Your task to perform on an android device: View the shopping cart on newegg.com. Search for usb-a on newegg.com, select the first entry, and add it to the cart. Image 0: 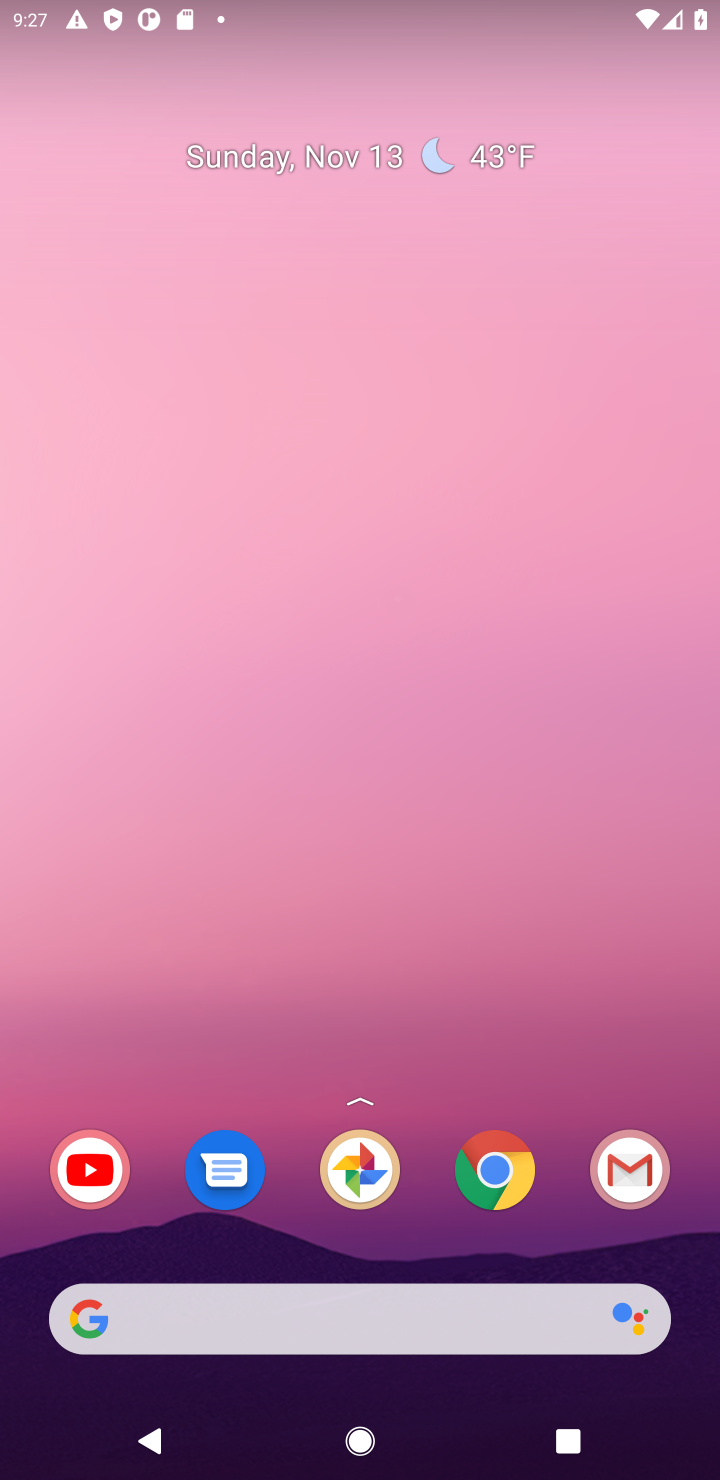
Step 0: drag from (462, 1191) to (426, 29)
Your task to perform on an android device: View the shopping cart on newegg.com. Search for usb-a on newegg.com, select the first entry, and add it to the cart. Image 1: 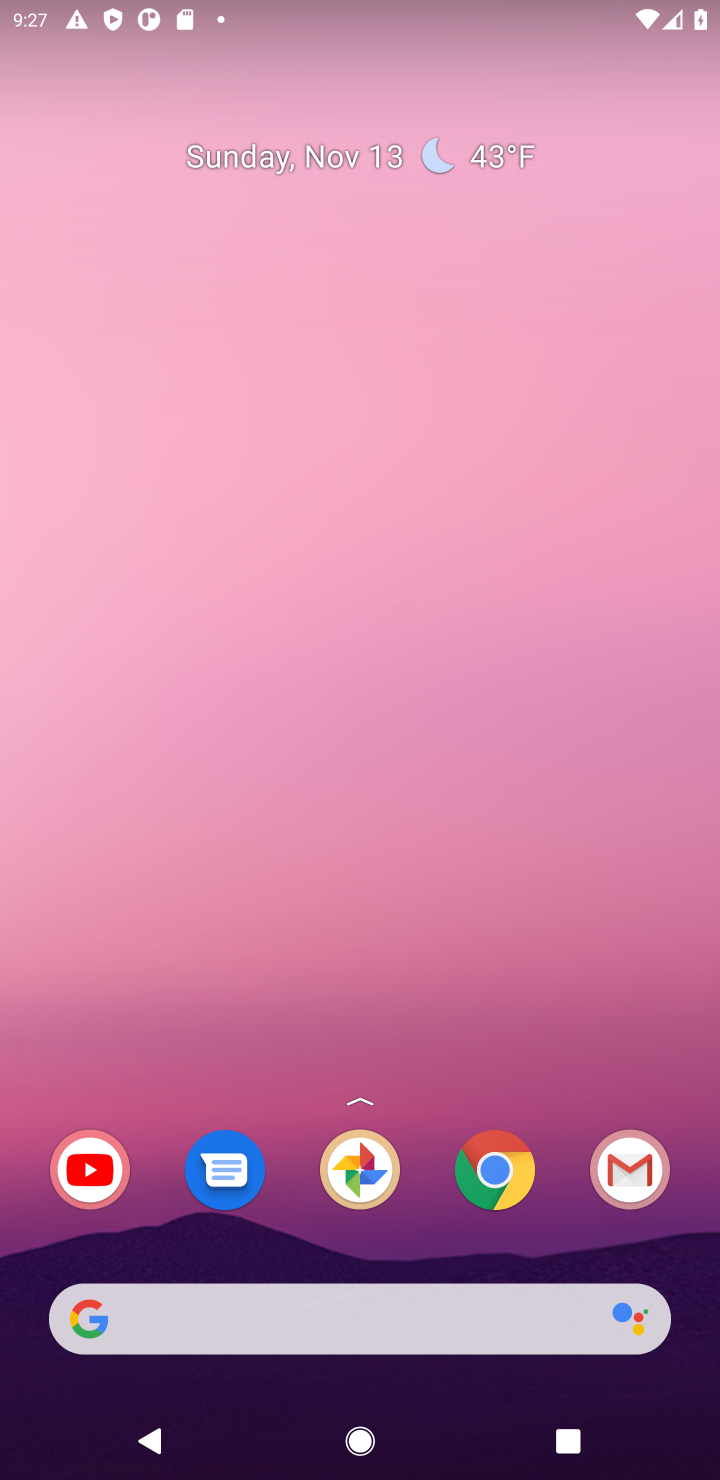
Step 1: drag from (375, 930) to (219, 33)
Your task to perform on an android device: View the shopping cart on newegg.com. Search for usb-a on newegg.com, select the first entry, and add it to the cart. Image 2: 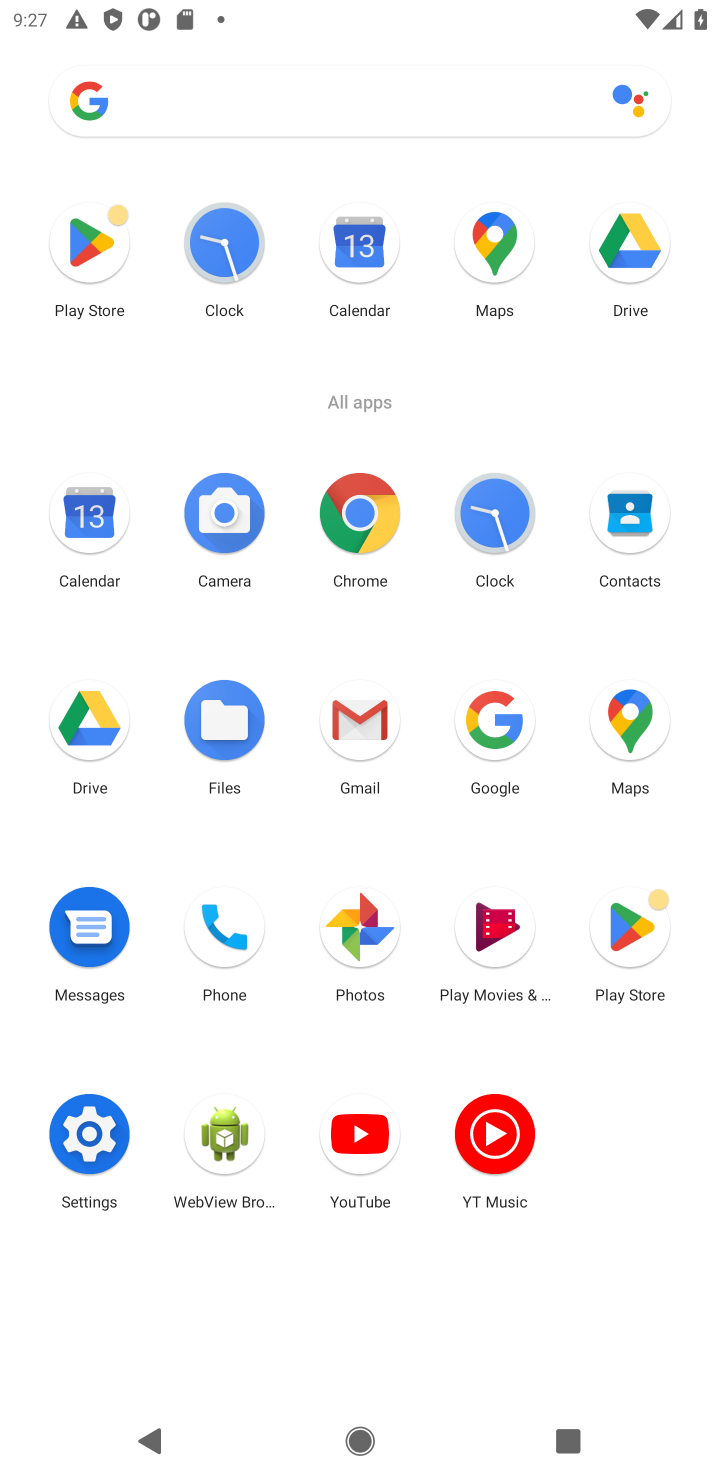
Step 2: click (374, 510)
Your task to perform on an android device: View the shopping cart on newegg.com. Search for usb-a on newegg.com, select the first entry, and add it to the cart. Image 3: 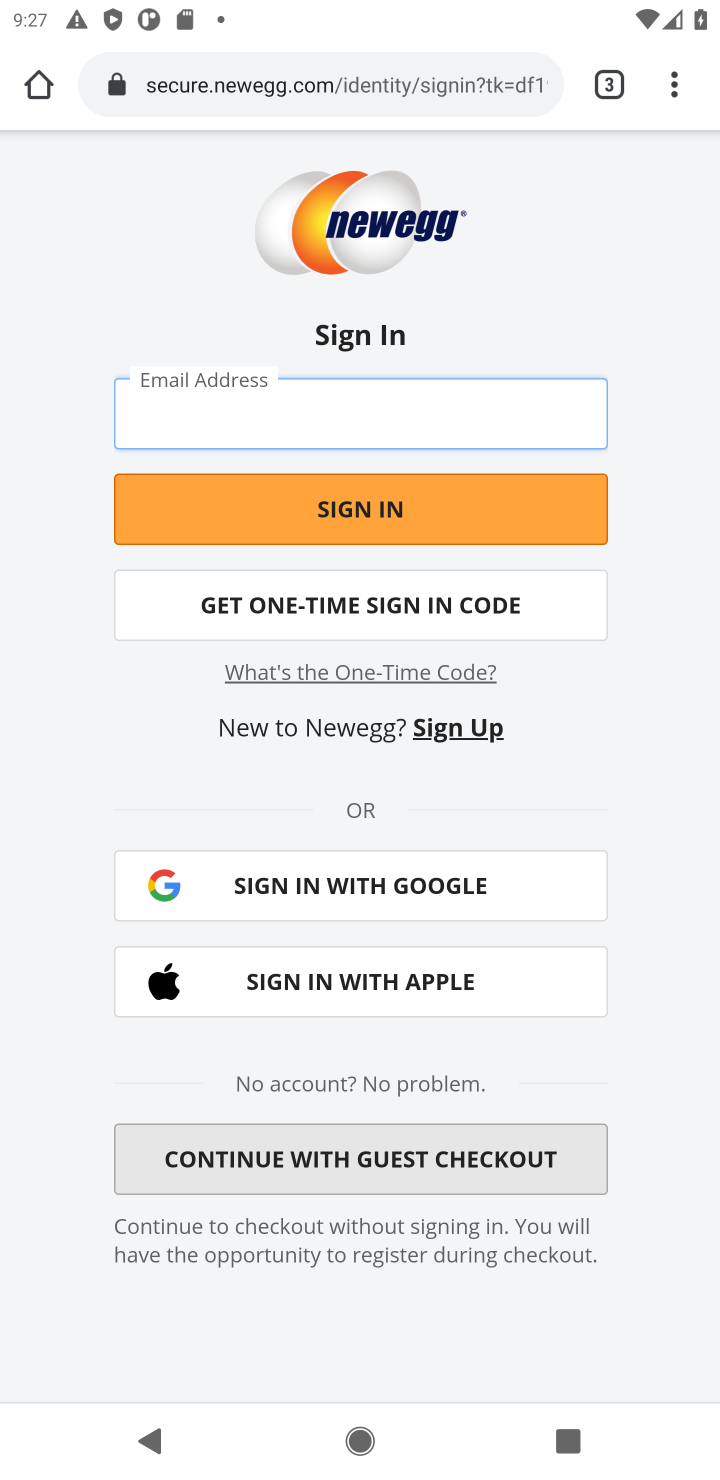
Step 3: press back button
Your task to perform on an android device: View the shopping cart on newegg.com. Search for usb-a on newegg.com, select the first entry, and add it to the cart. Image 4: 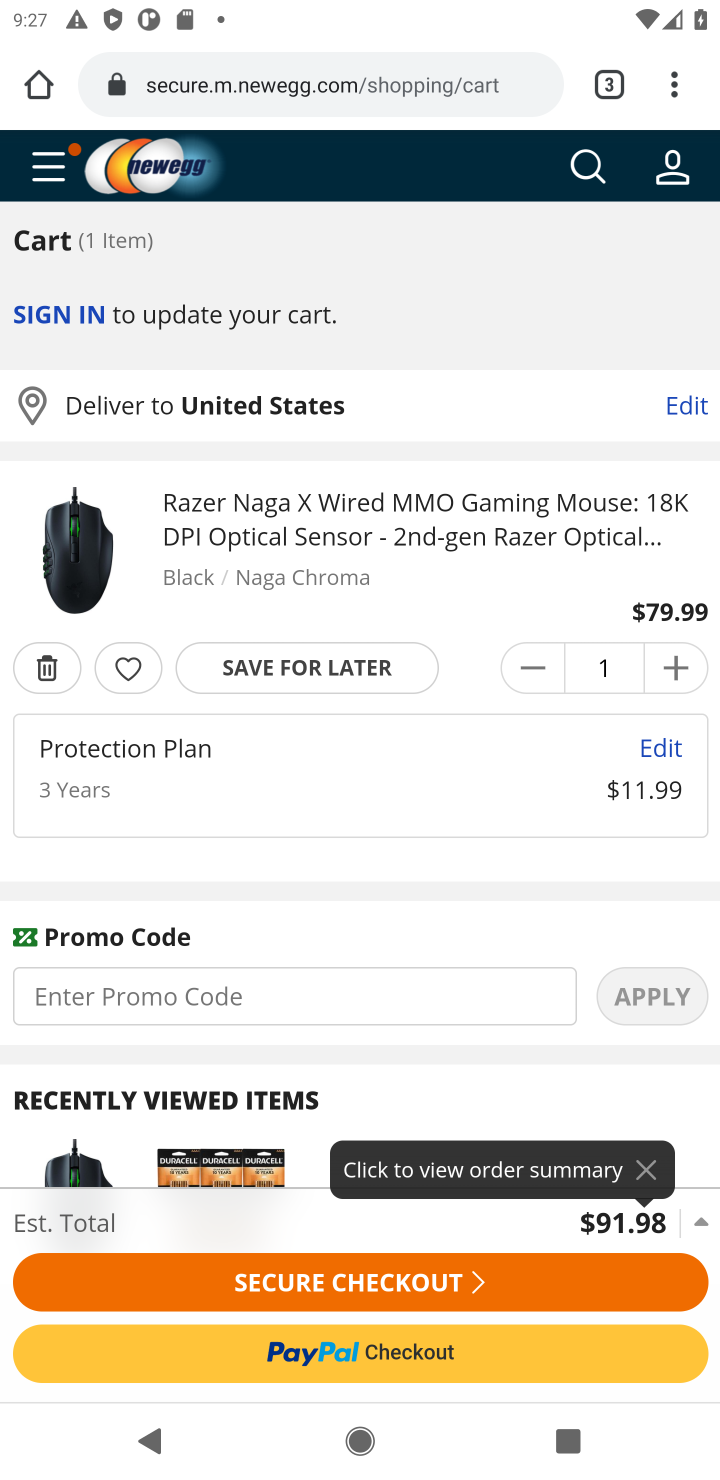
Step 4: click (587, 168)
Your task to perform on an android device: View the shopping cart on newegg.com. Search for usb-a on newegg.com, select the first entry, and add it to the cart. Image 5: 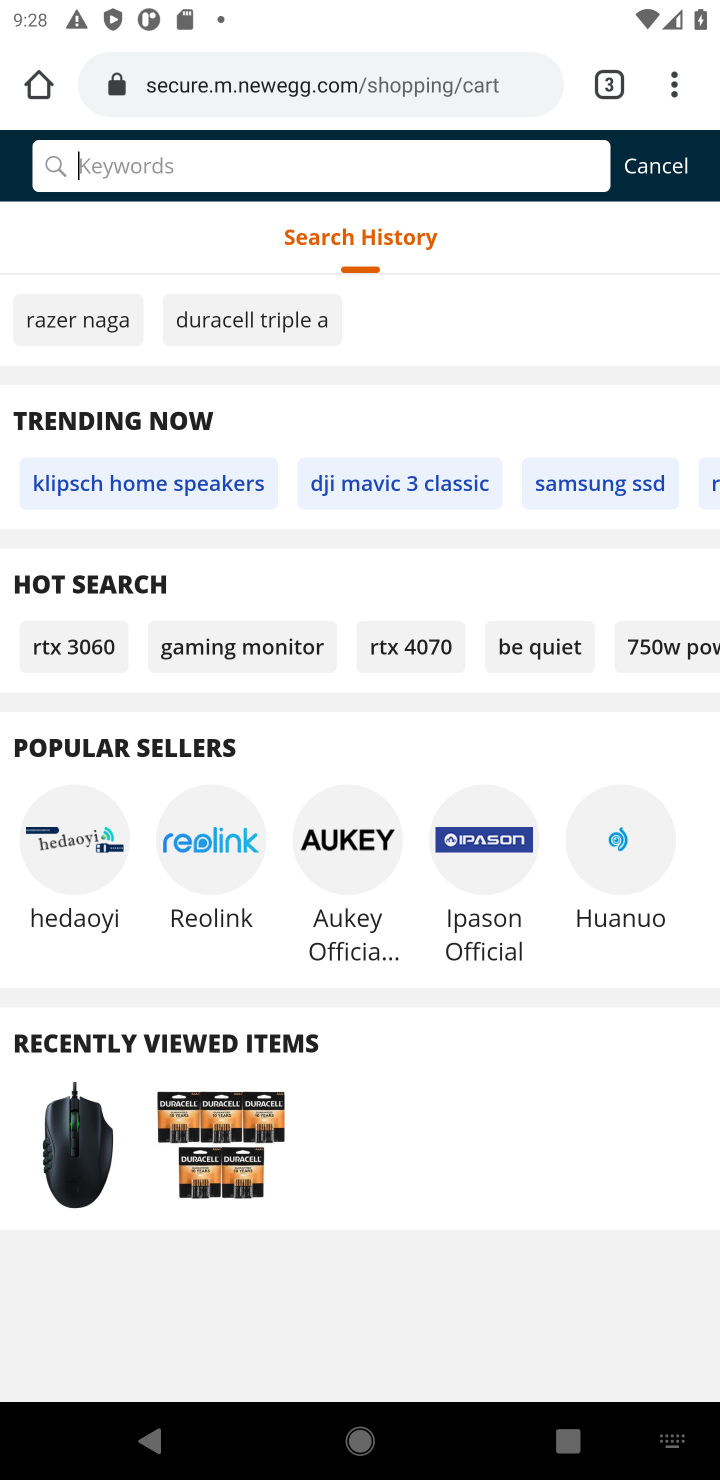
Step 5: click (532, 1016)
Your task to perform on an android device: View the shopping cart on newegg.com. Search for usb-a on newegg.com, select the first entry, and add it to the cart. Image 6: 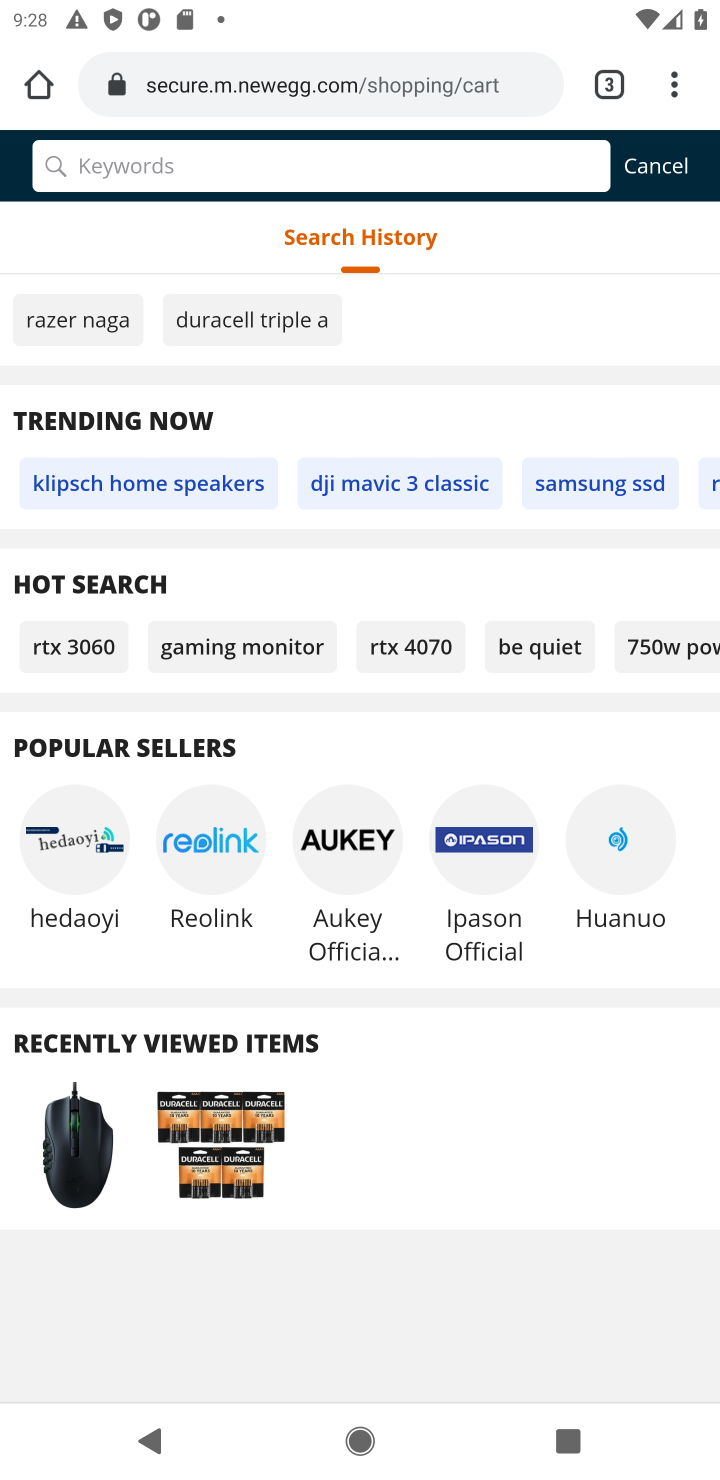
Step 6: click (161, 163)
Your task to perform on an android device: View the shopping cart on newegg.com. Search for usb-a on newegg.com, select the first entry, and add it to the cart. Image 7: 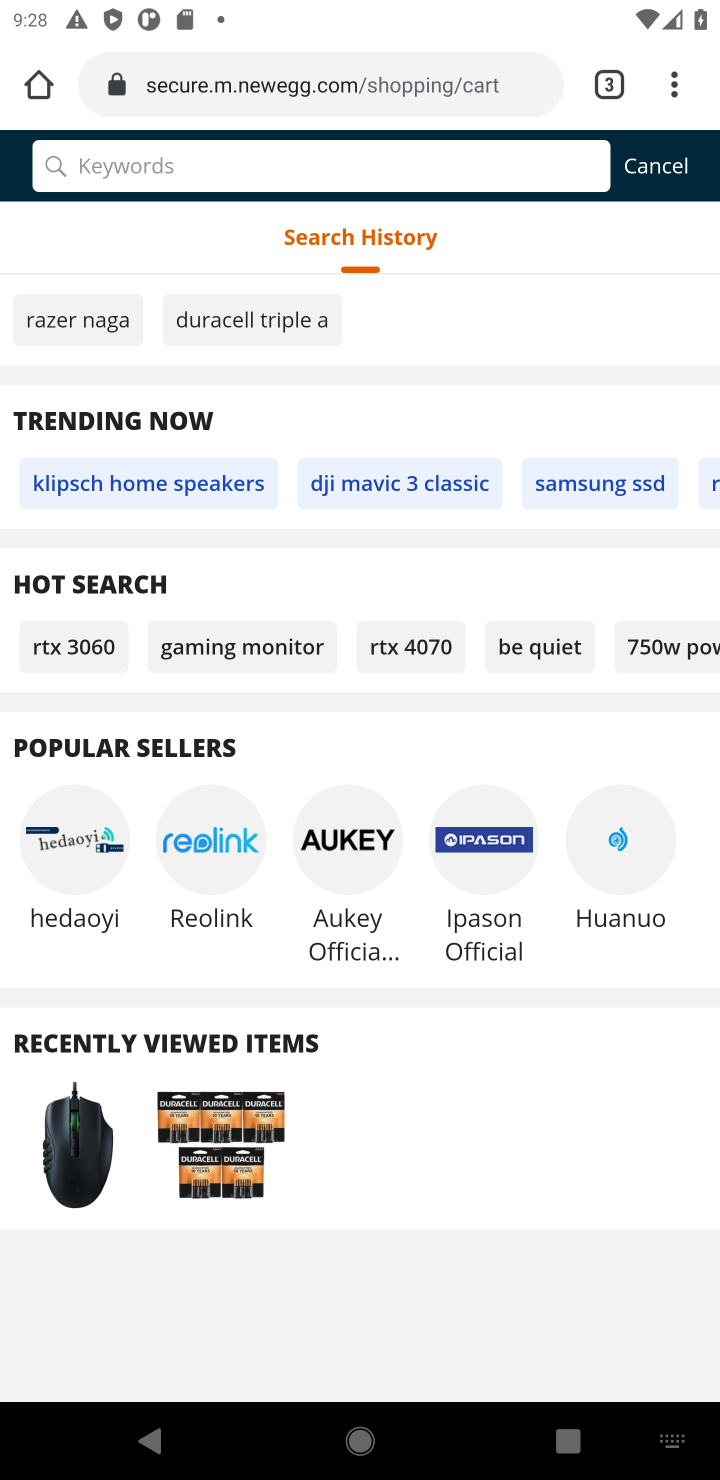
Step 7: type "razer naga "
Your task to perform on an android device: View the shopping cart on newegg.com. Search for usb-a on newegg.com, select the first entry, and add it to the cart. Image 8: 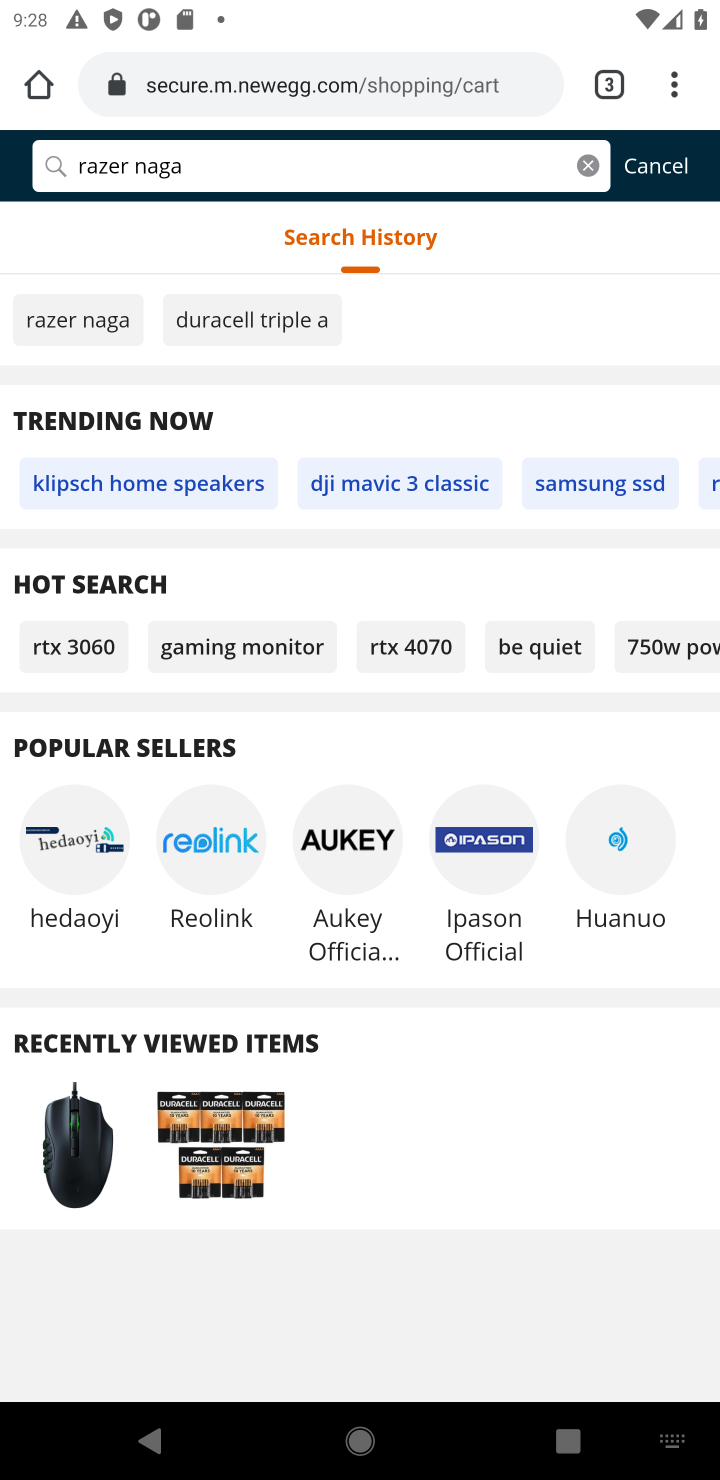
Step 8: press enter
Your task to perform on an android device: View the shopping cart on newegg.com. Search for usb-a on newegg.com, select the first entry, and add it to the cart. Image 9: 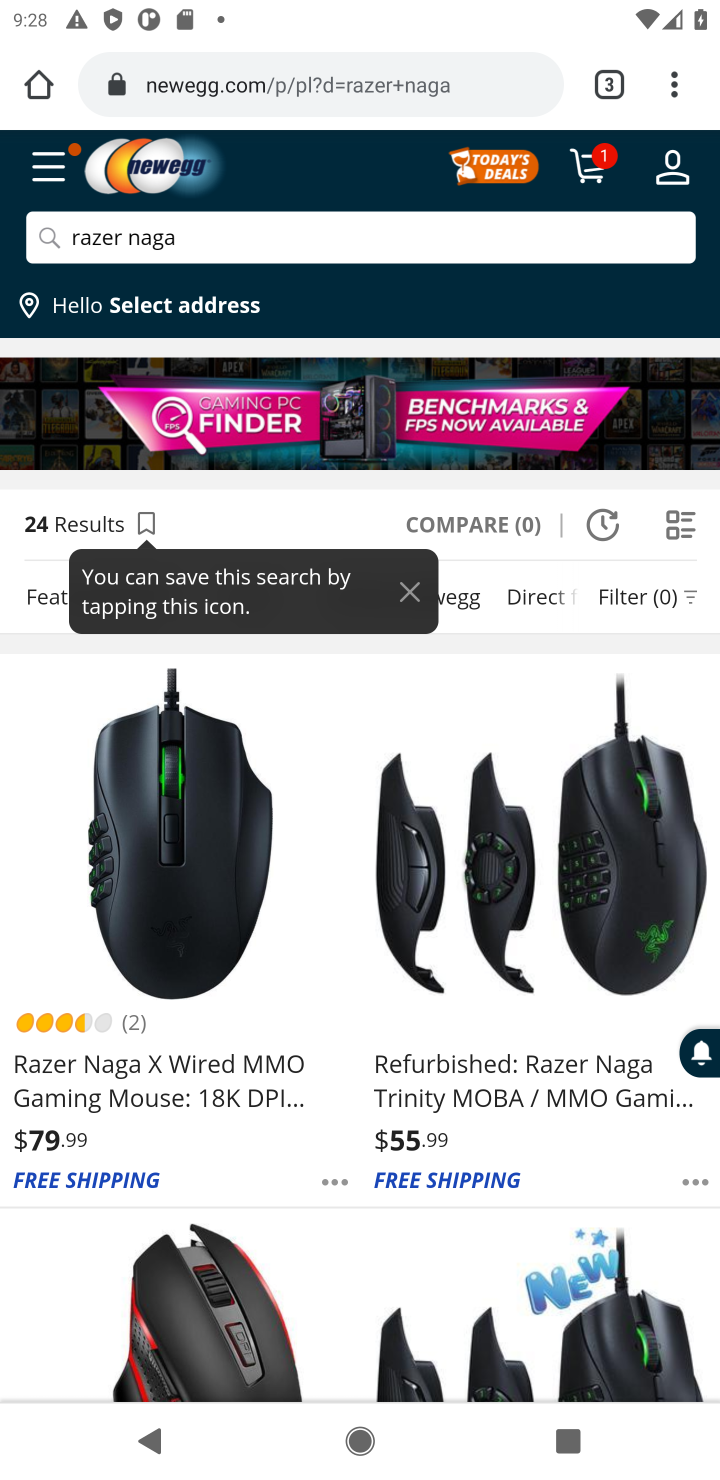
Step 9: click (66, 1059)
Your task to perform on an android device: View the shopping cart on newegg.com. Search for usb-a on newegg.com, select the first entry, and add it to the cart. Image 10: 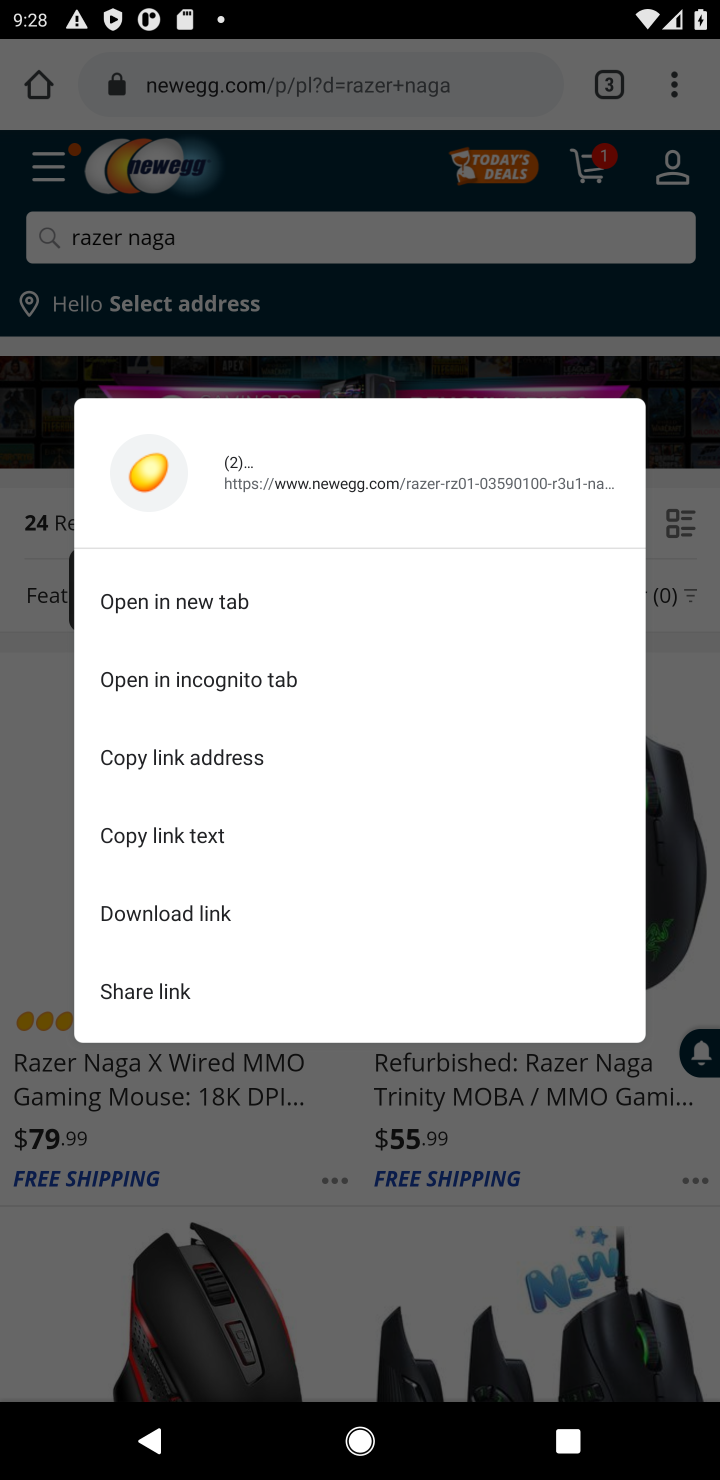
Step 10: click (130, 590)
Your task to perform on an android device: View the shopping cart on newegg.com. Search for usb-a on newegg.com, select the first entry, and add it to the cart. Image 11: 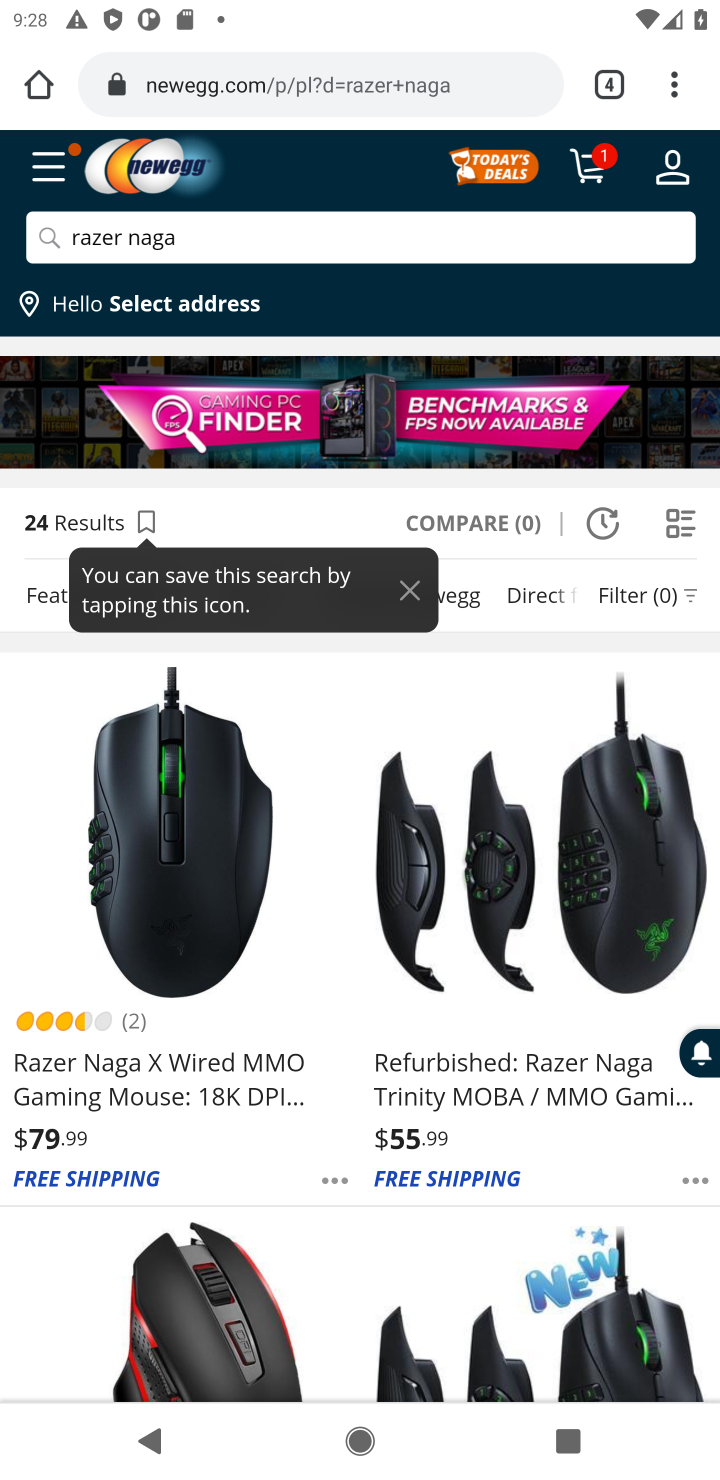
Step 11: click (223, 1065)
Your task to perform on an android device: View the shopping cart on newegg.com. Search for usb-a on newegg.com, select the first entry, and add it to the cart. Image 12: 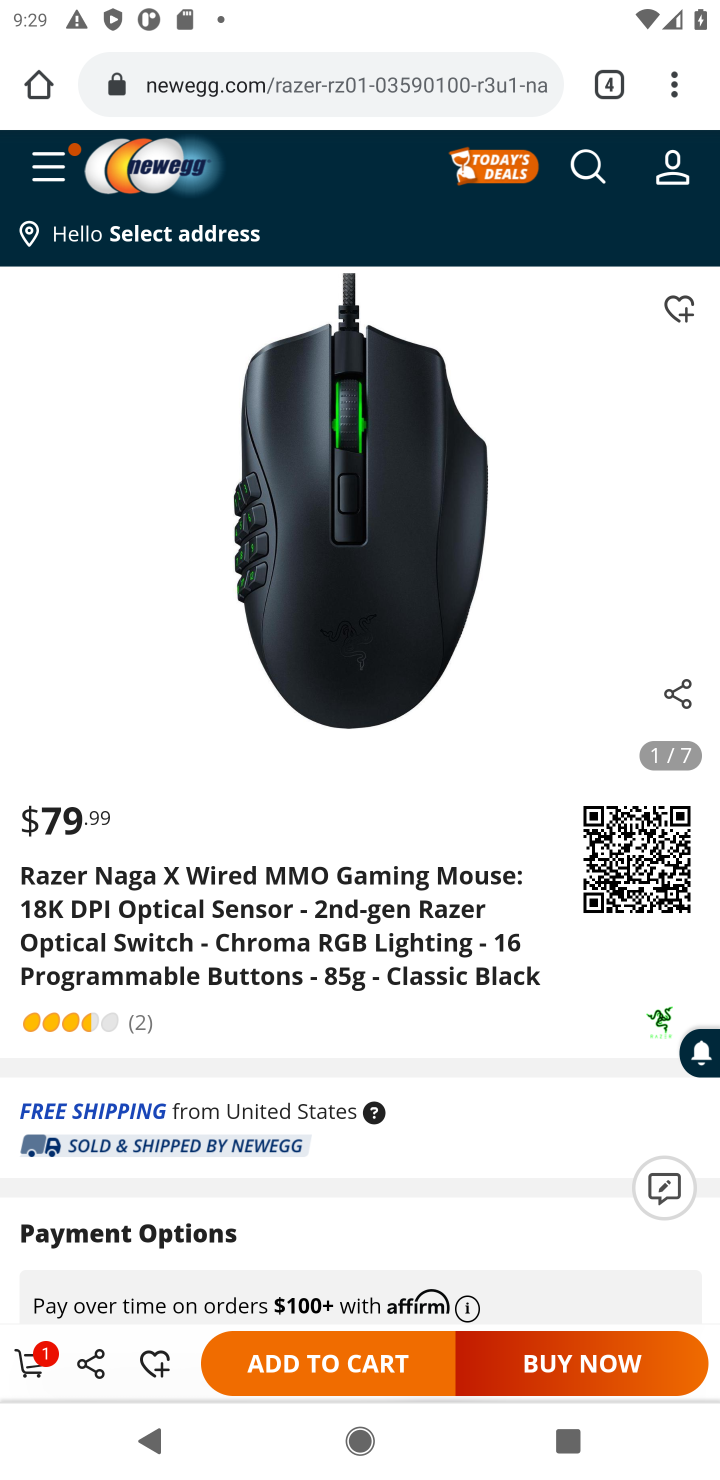
Step 12: click (317, 1354)
Your task to perform on an android device: View the shopping cart on newegg.com. Search for usb-a on newegg.com, select the first entry, and add it to the cart. Image 13: 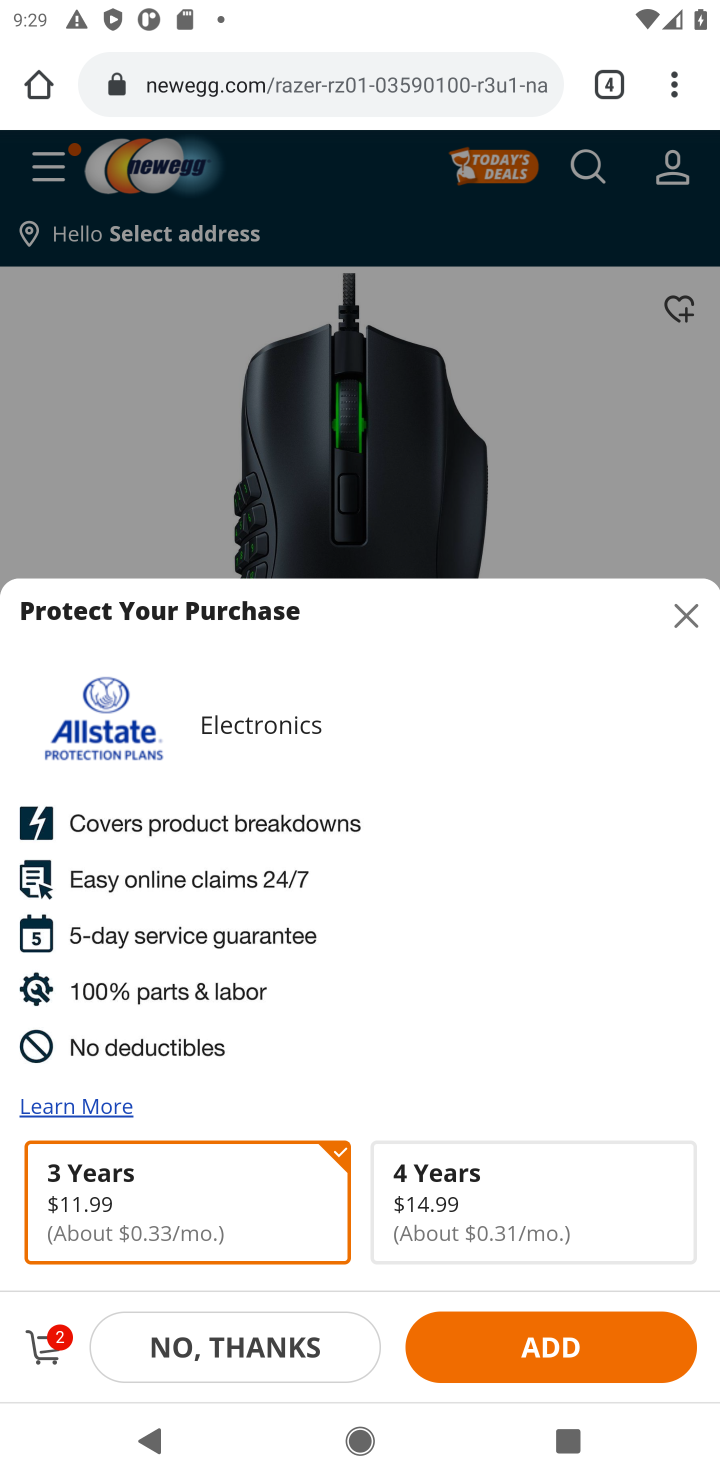
Step 13: click (619, 1327)
Your task to perform on an android device: View the shopping cart on newegg.com. Search for usb-a on newegg.com, select the first entry, and add it to the cart. Image 14: 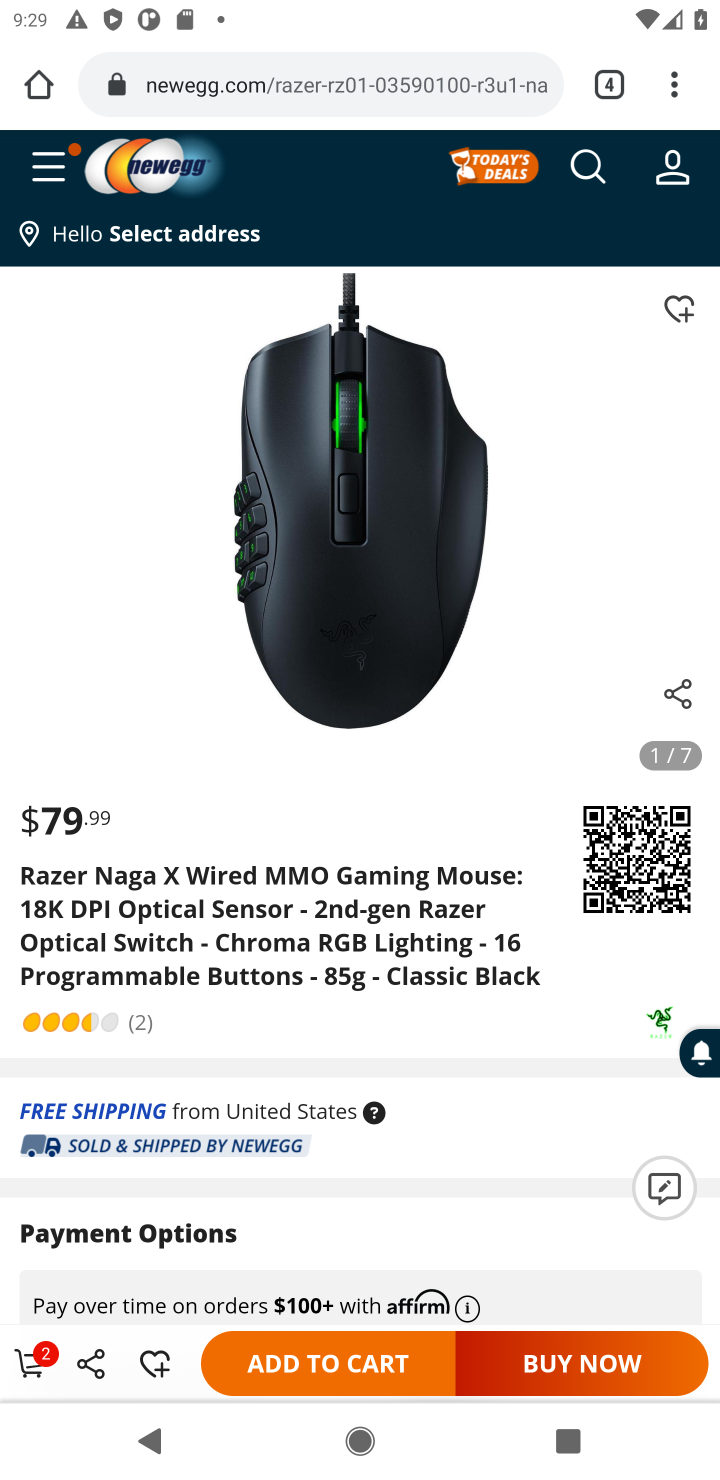
Step 14: task complete